Your task to perform on an android device: Open Google Chrome and click the shortcut for Amazon.com Image 0: 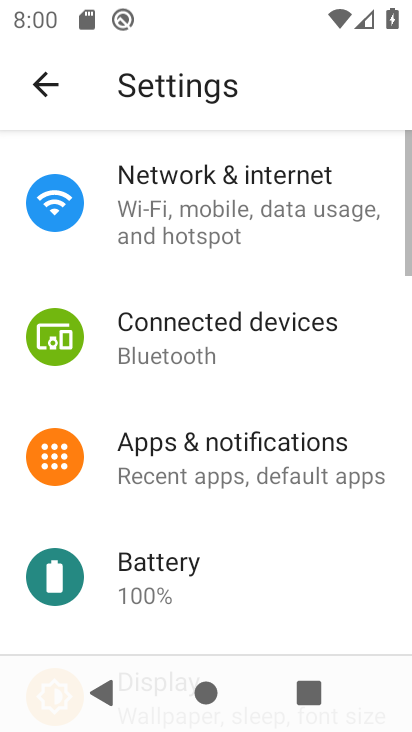
Step 0: press home button
Your task to perform on an android device: Open Google Chrome and click the shortcut for Amazon.com Image 1: 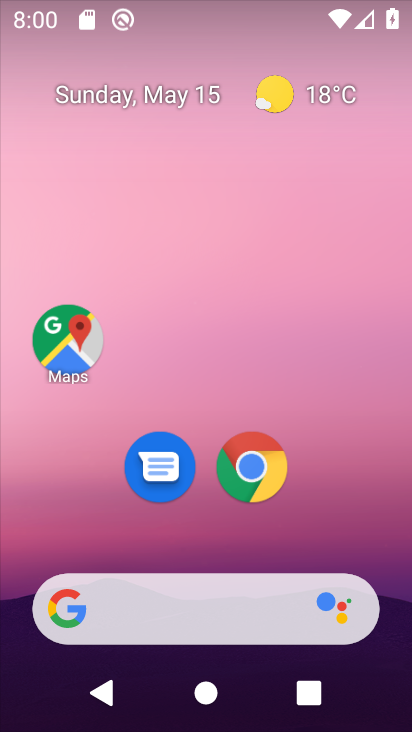
Step 1: click (254, 464)
Your task to perform on an android device: Open Google Chrome and click the shortcut for Amazon.com Image 2: 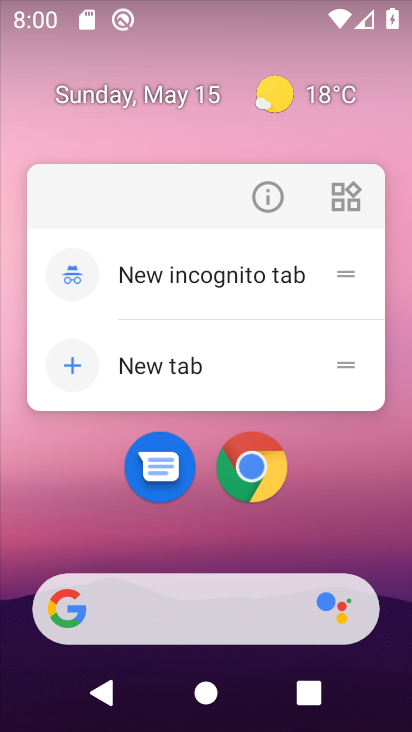
Step 2: click (254, 464)
Your task to perform on an android device: Open Google Chrome and click the shortcut for Amazon.com Image 3: 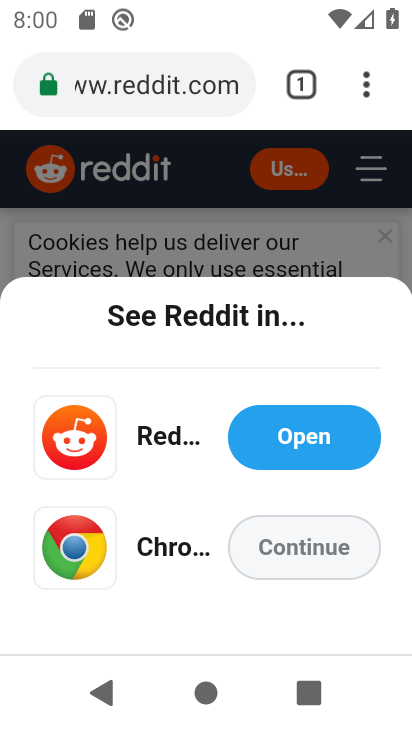
Step 3: click (367, 103)
Your task to perform on an android device: Open Google Chrome and click the shortcut for Amazon.com Image 4: 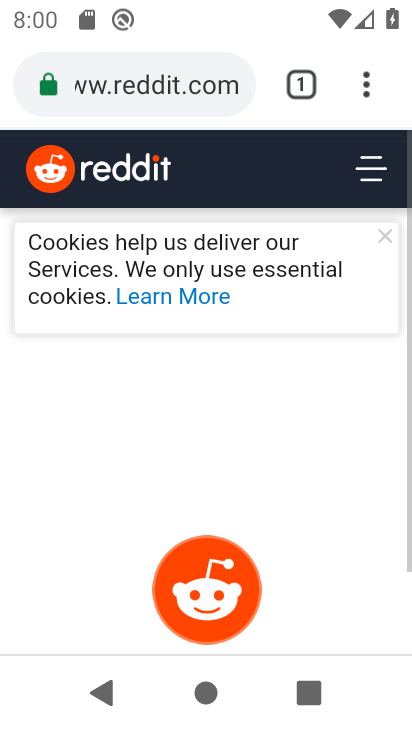
Step 4: click (365, 97)
Your task to perform on an android device: Open Google Chrome and click the shortcut for Amazon.com Image 5: 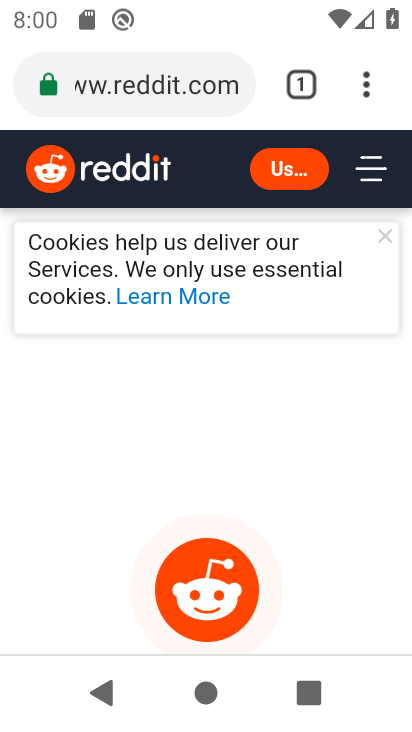
Step 5: click (364, 97)
Your task to perform on an android device: Open Google Chrome and click the shortcut for Amazon.com Image 6: 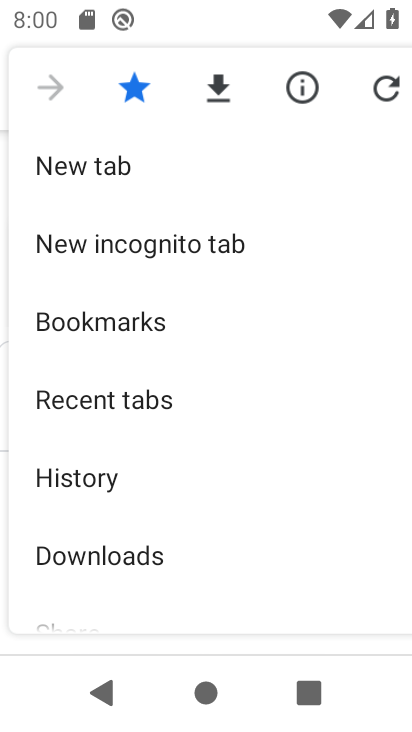
Step 6: click (80, 159)
Your task to perform on an android device: Open Google Chrome and click the shortcut for Amazon.com Image 7: 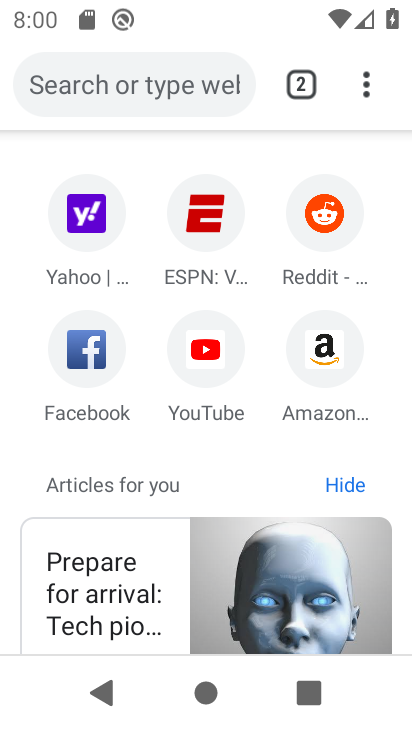
Step 7: click (331, 349)
Your task to perform on an android device: Open Google Chrome and click the shortcut for Amazon.com Image 8: 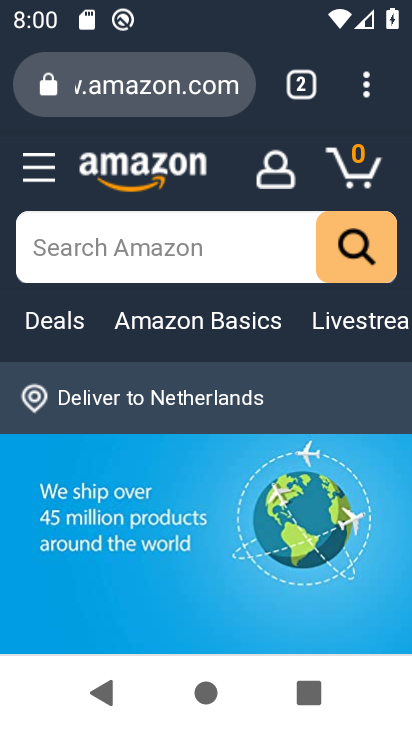
Step 8: task complete